Your task to perform on an android device: turn on data saver in the chrome app Image 0: 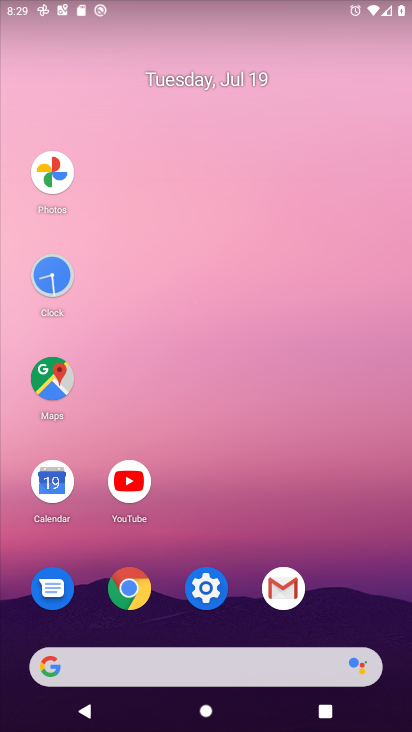
Step 0: click (130, 581)
Your task to perform on an android device: turn on data saver in the chrome app Image 1: 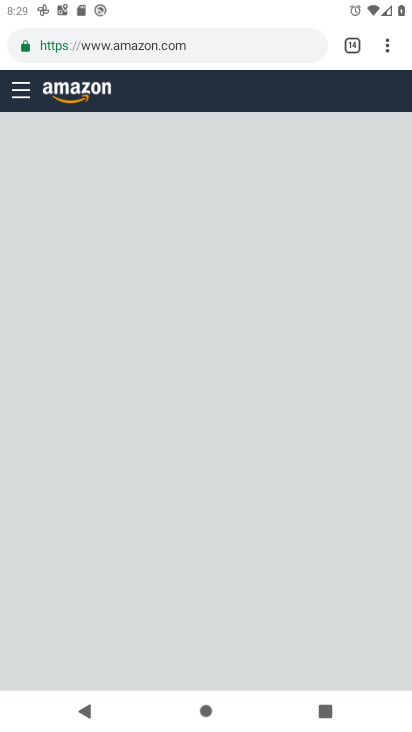
Step 1: click (390, 45)
Your task to perform on an android device: turn on data saver in the chrome app Image 2: 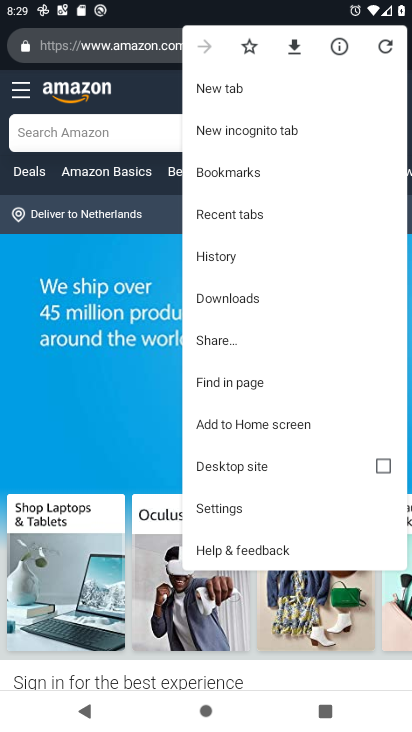
Step 2: click (211, 504)
Your task to perform on an android device: turn on data saver in the chrome app Image 3: 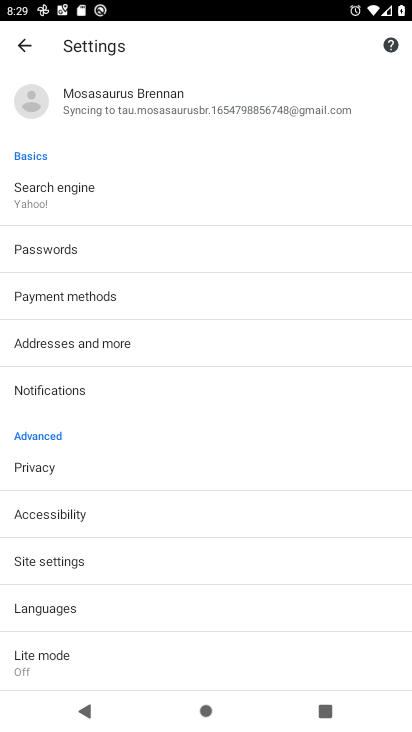
Step 3: click (53, 650)
Your task to perform on an android device: turn on data saver in the chrome app Image 4: 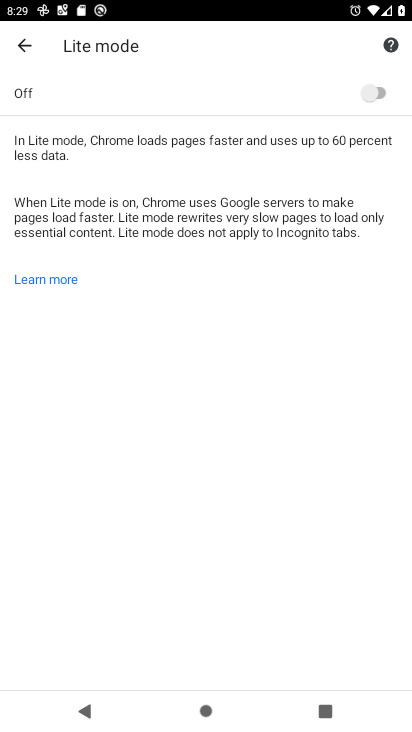
Step 4: click (368, 88)
Your task to perform on an android device: turn on data saver in the chrome app Image 5: 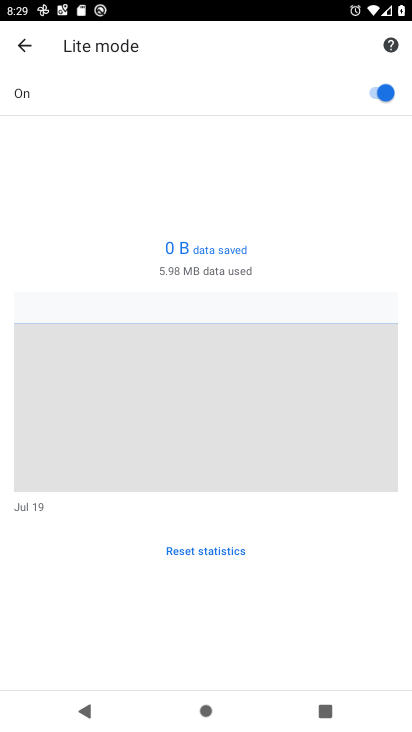
Step 5: task complete